Your task to perform on an android device: find snoozed emails in the gmail app Image 0: 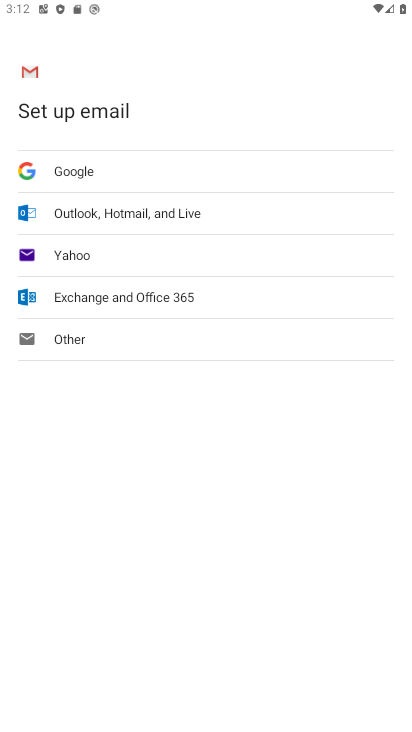
Step 0: drag from (159, 649) to (202, 315)
Your task to perform on an android device: find snoozed emails in the gmail app Image 1: 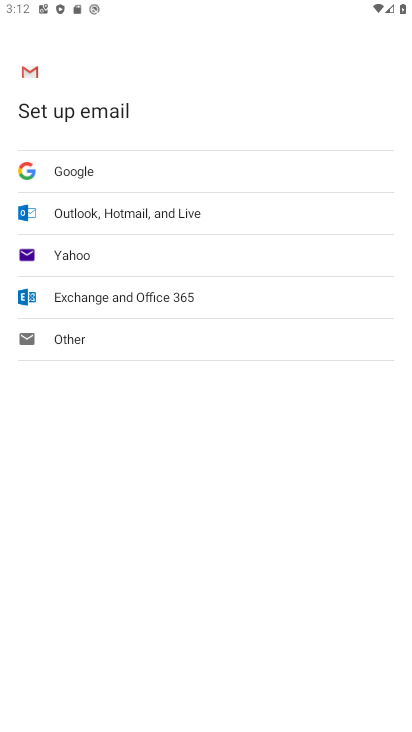
Step 1: press home button
Your task to perform on an android device: find snoozed emails in the gmail app Image 2: 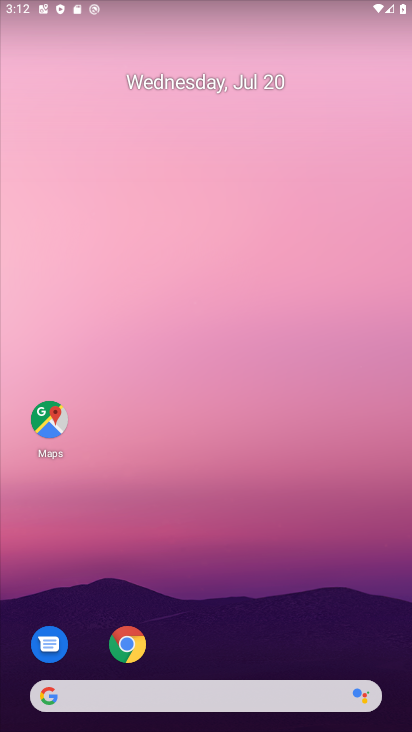
Step 2: drag from (145, 618) to (145, 283)
Your task to perform on an android device: find snoozed emails in the gmail app Image 3: 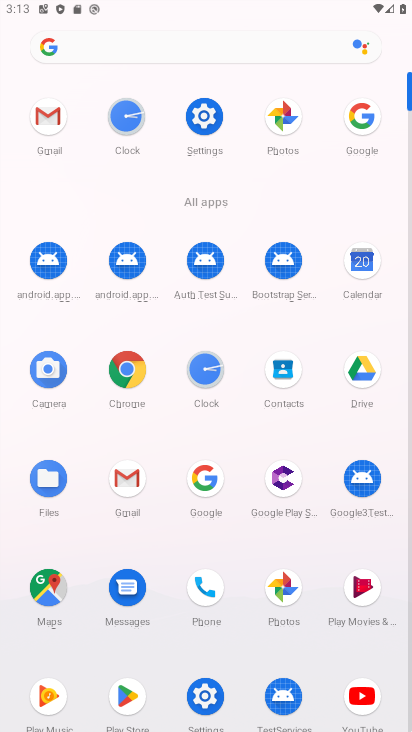
Step 3: click (120, 484)
Your task to perform on an android device: find snoozed emails in the gmail app Image 4: 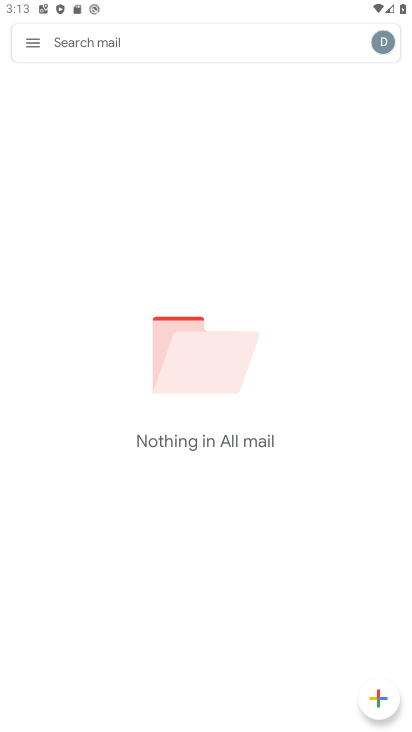
Step 4: click (34, 51)
Your task to perform on an android device: find snoozed emails in the gmail app Image 5: 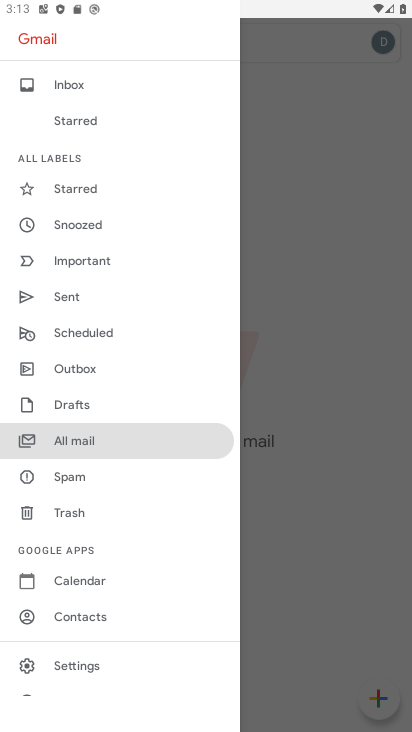
Step 5: click (83, 219)
Your task to perform on an android device: find snoozed emails in the gmail app Image 6: 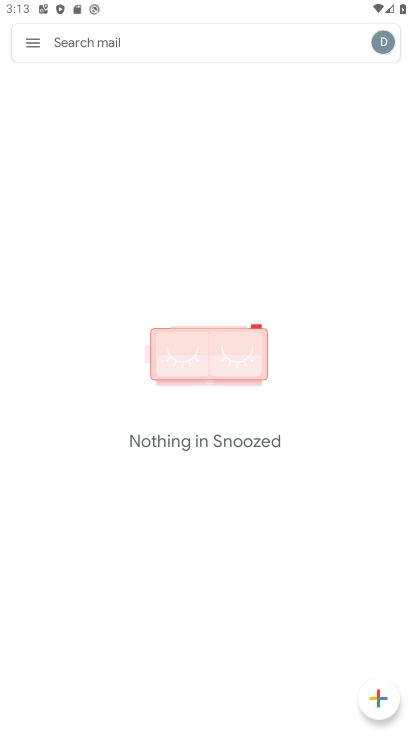
Step 6: task complete